Your task to perform on an android device: Show me popular games on the Play Store Image 0: 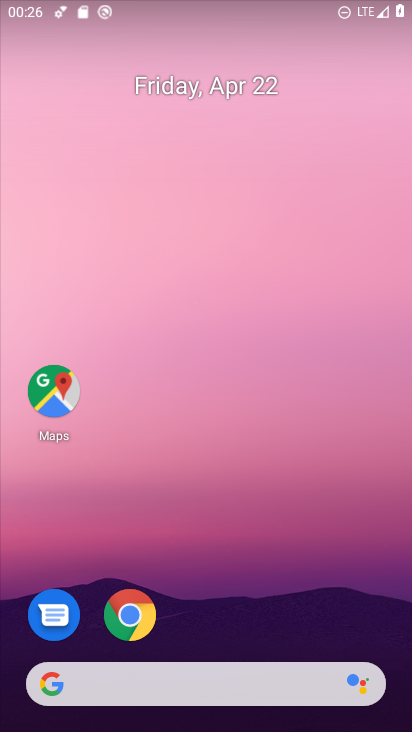
Step 0: drag from (232, 637) to (217, 98)
Your task to perform on an android device: Show me popular games on the Play Store Image 1: 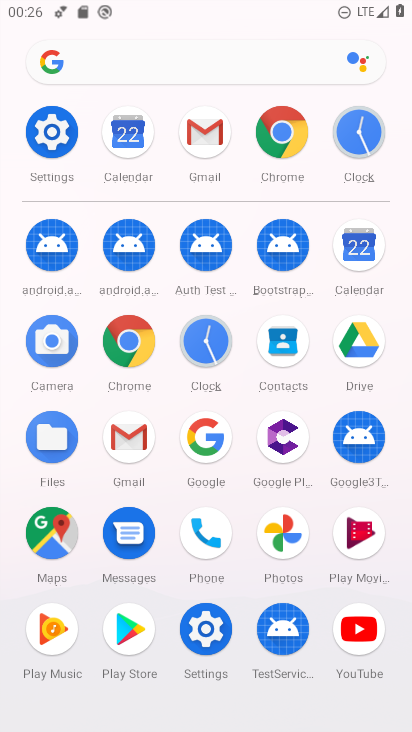
Step 1: click (123, 622)
Your task to perform on an android device: Show me popular games on the Play Store Image 2: 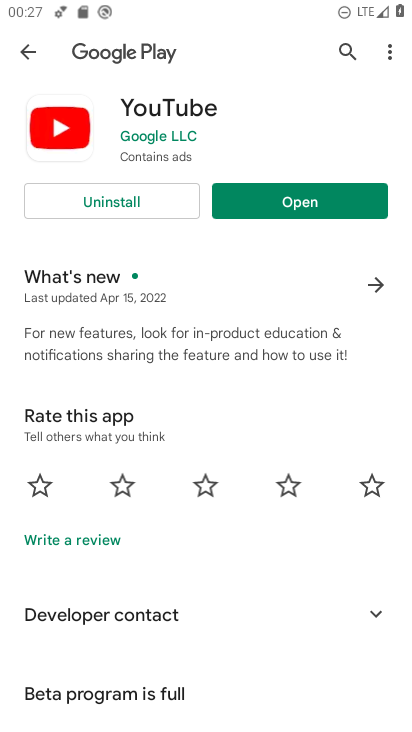
Step 2: click (113, 200)
Your task to perform on an android device: Show me popular games on the Play Store Image 3: 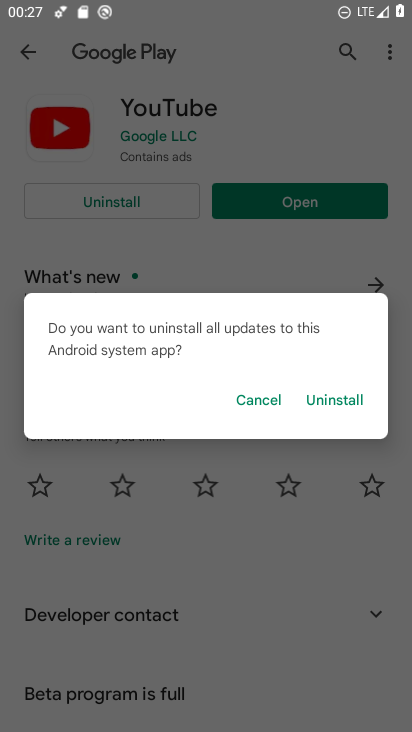
Step 3: click (254, 394)
Your task to perform on an android device: Show me popular games on the Play Store Image 4: 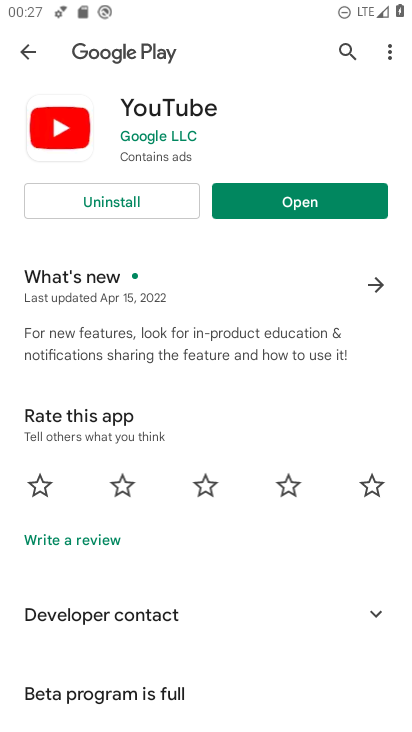
Step 4: click (28, 56)
Your task to perform on an android device: Show me popular games on the Play Store Image 5: 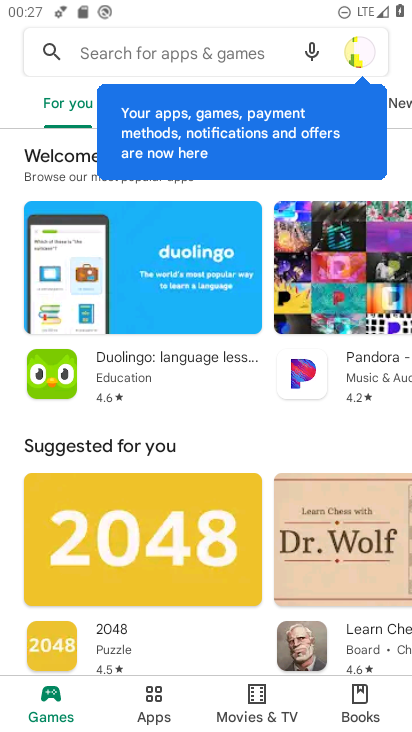
Step 5: drag from (201, 458) to (208, 114)
Your task to perform on an android device: Show me popular games on the Play Store Image 6: 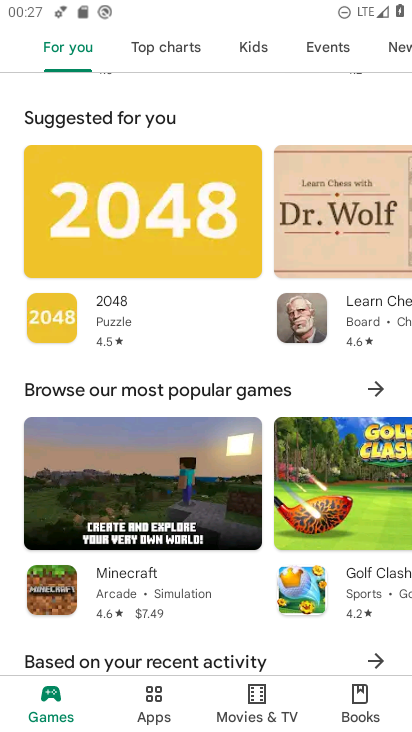
Step 6: click (356, 386)
Your task to perform on an android device: Show me popular games on the Play Store Image 7: 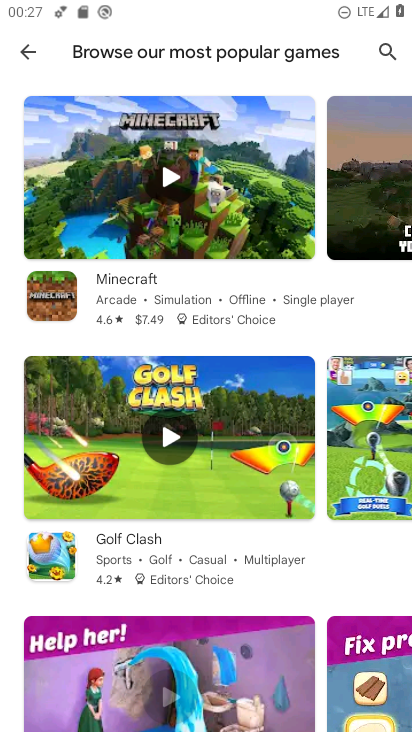
Step 7: drag from (242, 607) to (239, 302)
Your task to perform on an android device: Show me popular games on the Play Store Image 8: 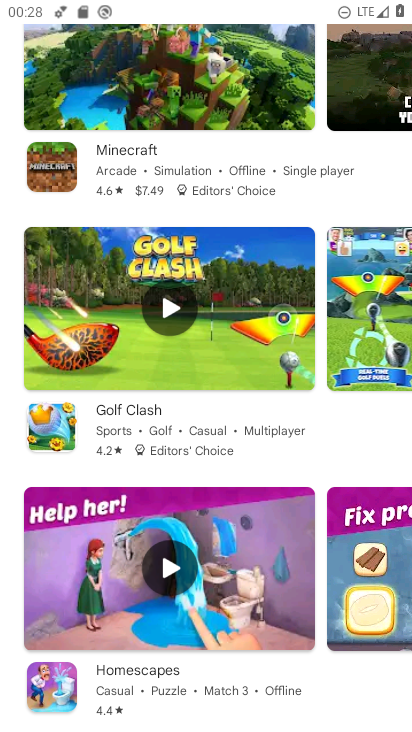
Step 8: drag from (241, 481) to (242, 80)
Your task to perform on an android device: Show me popular games on the Play Store Image 9: 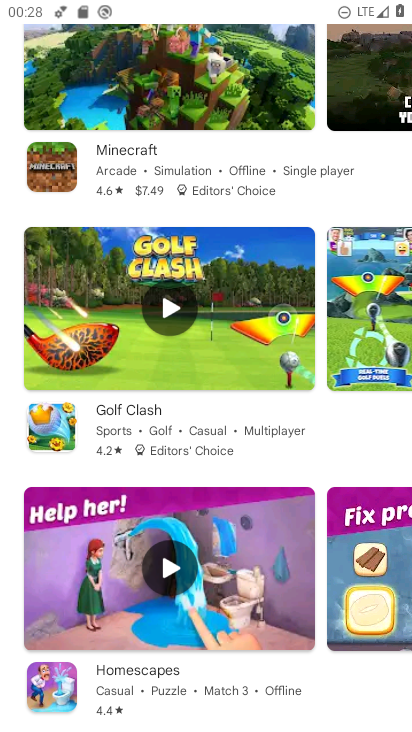
Step 9: drag from (251, 669) to (243, 109)
Your task to perform on an android device: Show me popular games on the Play Store Image 10: 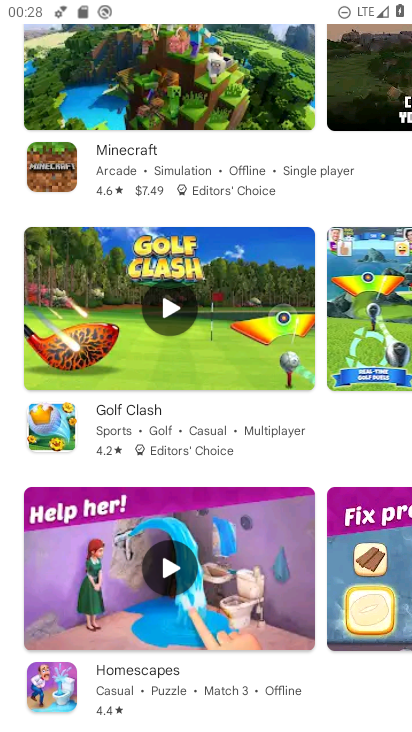
Step 10: drag from (253, 670) to (233, 182)
Your task to perform on an android device: Show me popular games on the Play Store Image 11: 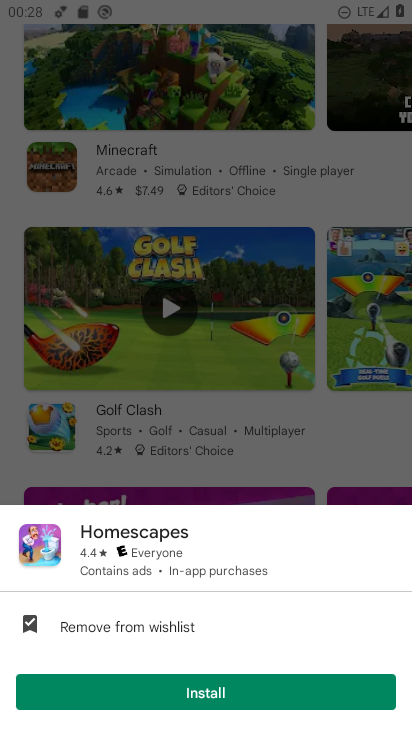
Step 11: click (236, 435)
Your task to perform on an android device: Show me popular games on the Play Store Image 12: 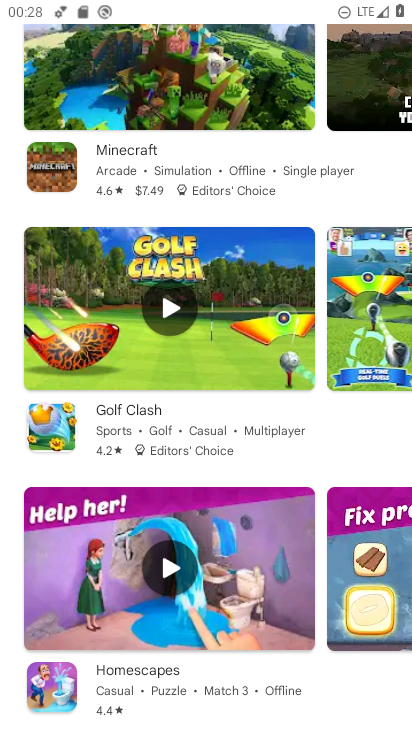
Step 12: task complete